Your task to perform on an android device: clear all cookies in the chrome app Image 0: 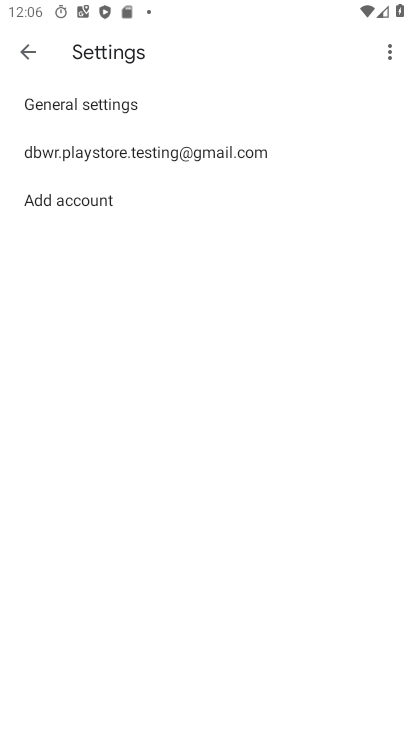
Step 0: press home button
Your task to perform on an android device: clear all cookies in the chrome app Image 1: 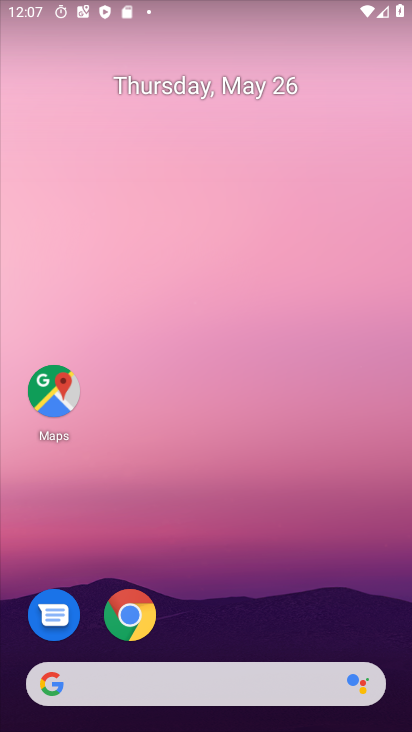
Step 1: click (138, 612)
Your task to perform on an android device: clear all cookies in the chrome app Image 2: 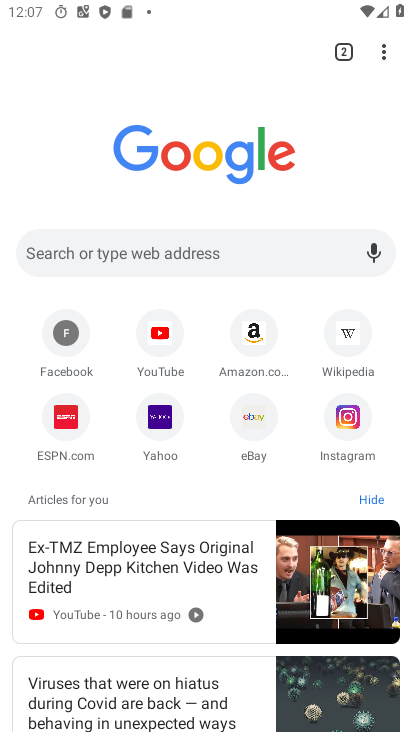
Step 2: click (392, 61)
Your task to perform on an android device: clear all cookies in the chrome app Image 3: 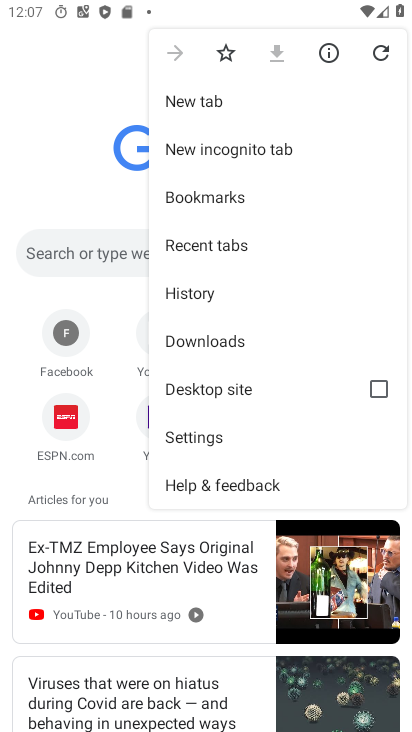
Step 3: click (218, 288)
Your task to perform on an android device: clear all cookies in the chrome app Image 4: 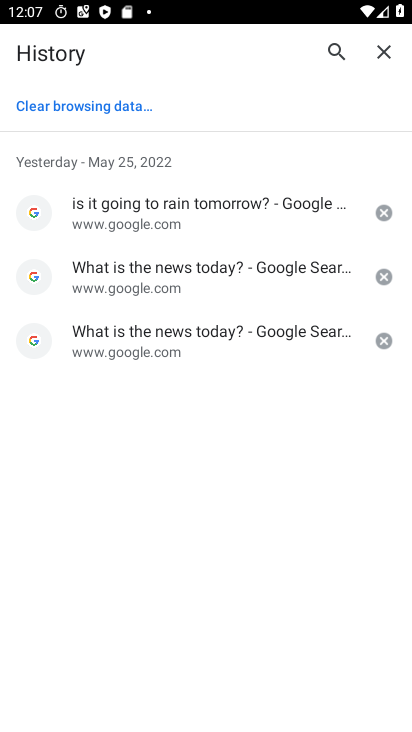
Step 4: click (103, 101)
Your task to perform on an android device: clear all cookies in the chrome app Image 5: 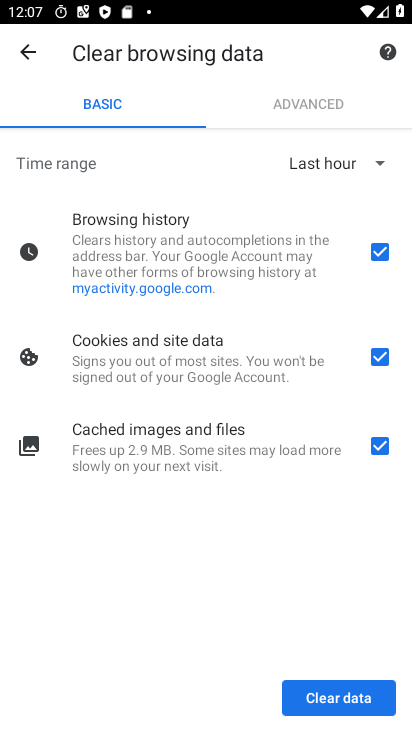
Step 5: click (381, 447)
Your task to perform on an android device: clear all cookies in the chrome app Image 6: 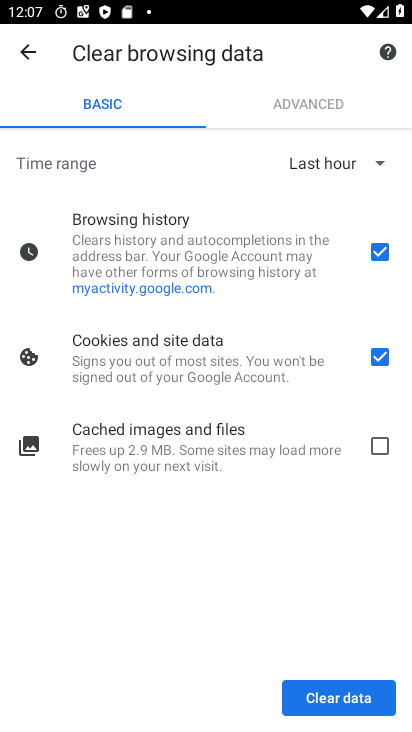
Step 6: click (379, 256)
Your task to perform on an android device: clear all cookies in the chrome app Image 7: 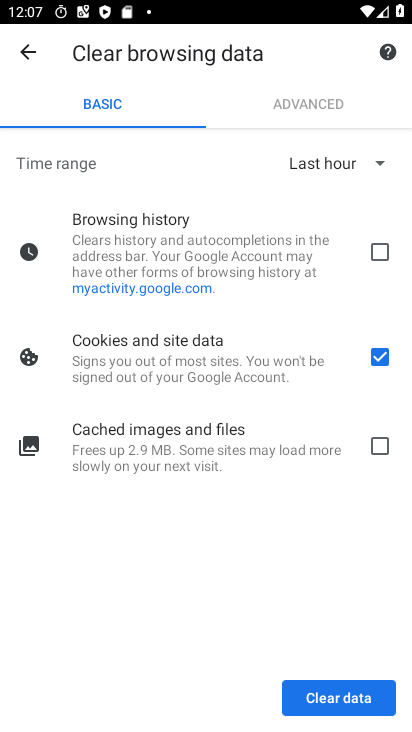
Step 7: click (369, 700)
Your task to perform on an android device: clear all cookies in the chrome app Image 8: 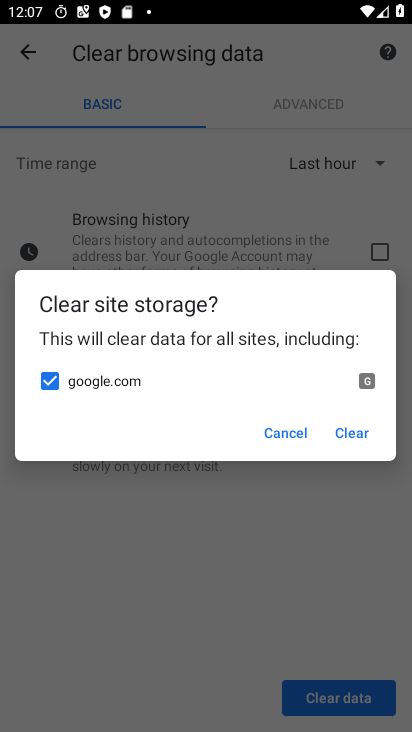
Step 8: click (360, 429)
Your task to perform on an android device: clear all cookies in the chrome app Image 9: 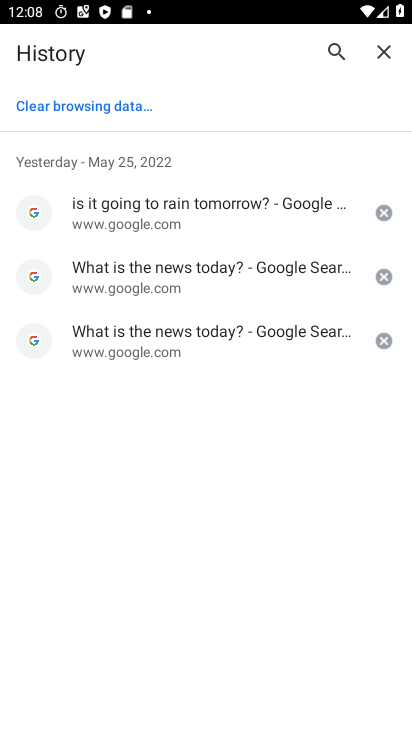
Step 9: task complete